Your task to perform on an android device: Open settings Image 0: 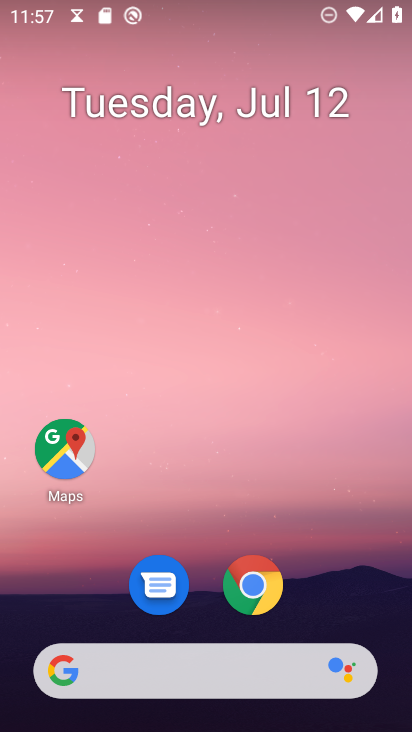
Step 0: press home button
Your task to perform on an android device: Open settings Image 1: 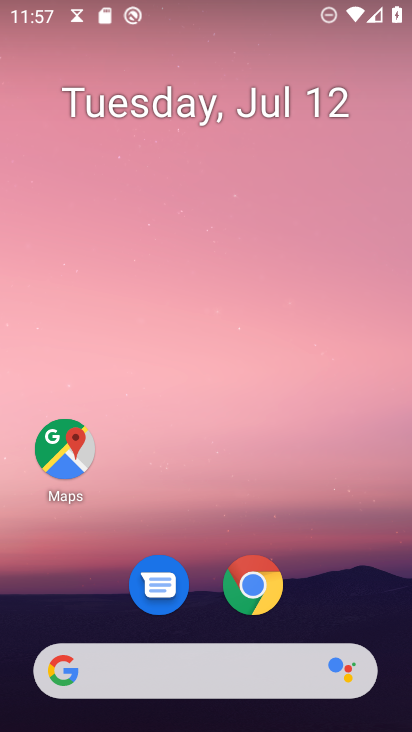
Step 1: drag from (175, 679) to (302, 107)
Your task to perform on an android device: Open settings Image 2: 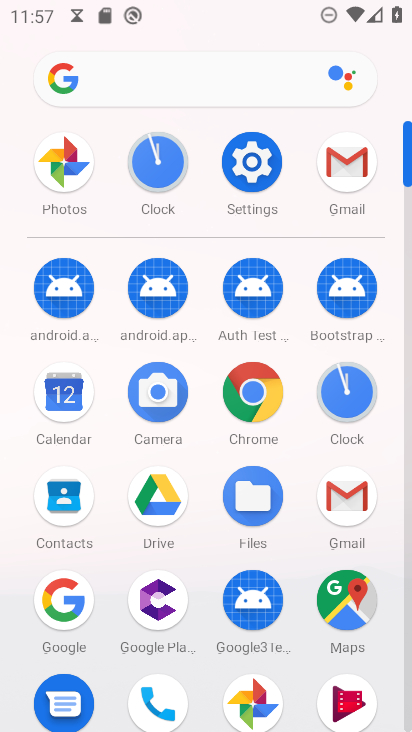
Step 2: click (253, 167)
Your task to perform on an android device: Open settings Image 3: 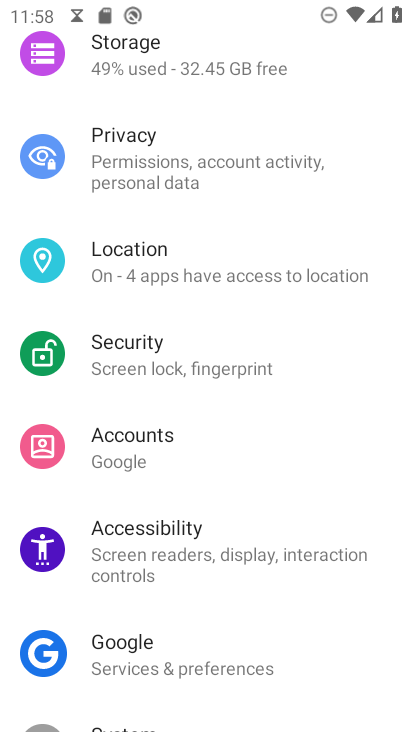
Step 3: task complete